Your task to perform on an android device: find photos in the google photos app Image 0: 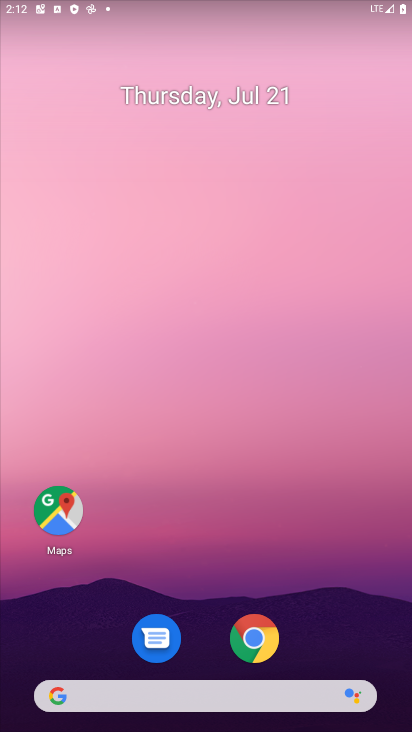
Step 0: drag from (224, 713) to (194, 369)
Your task to perform on an android device: find photos in the google photos app Image 1: 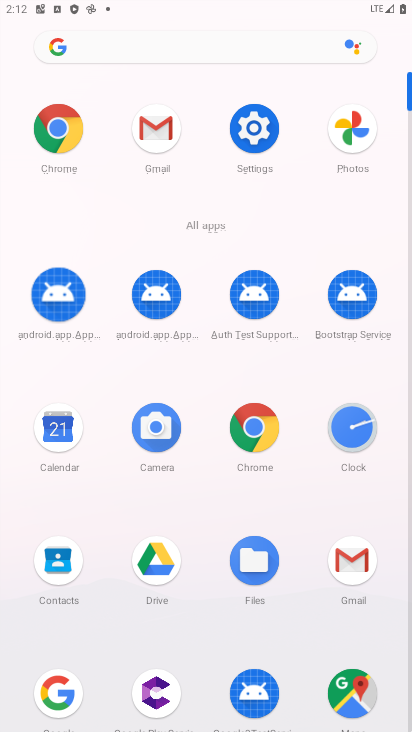
Step 1: click (350, 138)
Your task to perform on an android device: find photos in the google photos app Image 2: 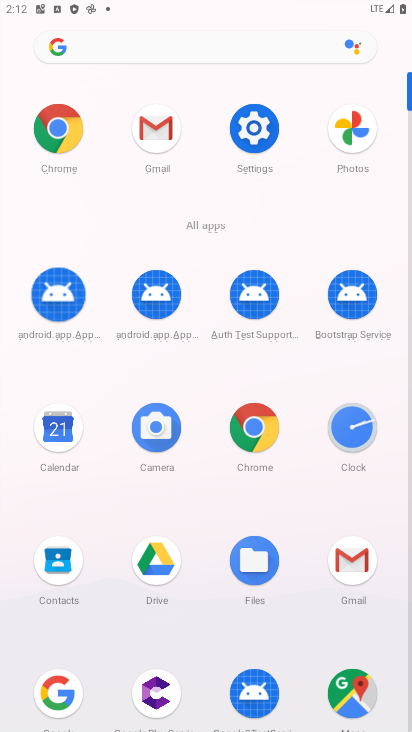
Step 2: click (350, 138)
Your task to perform on an android device: find photos in the google photos app Image 3: 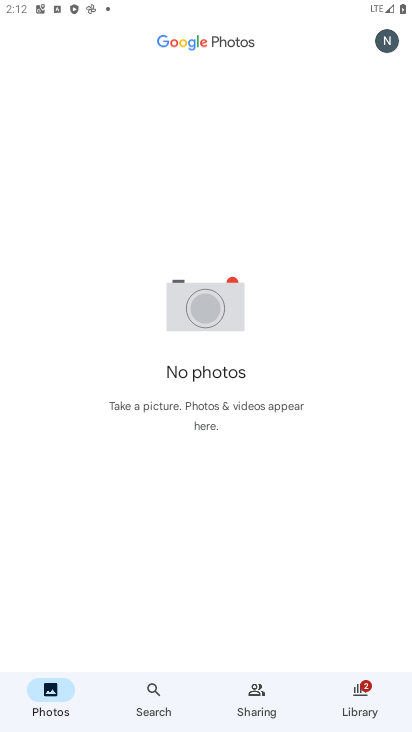
Step 3: click (156, 695)
Your task to perform on an android device: find photos in the google photos app Image 4: 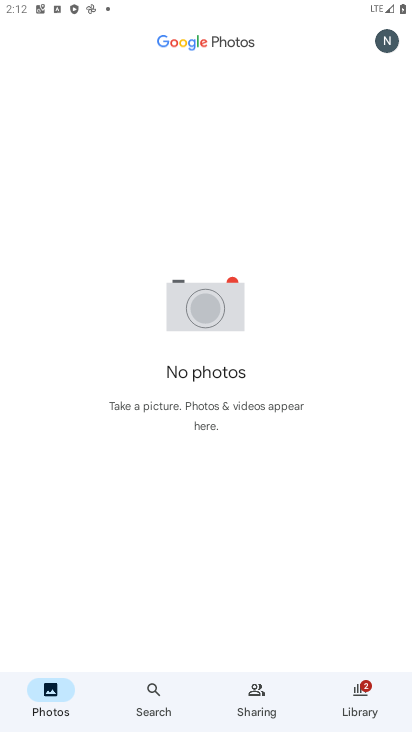
Step 4: click (156, 695)
Your task to perform on an android device: find photos in the google photos app Image 5: 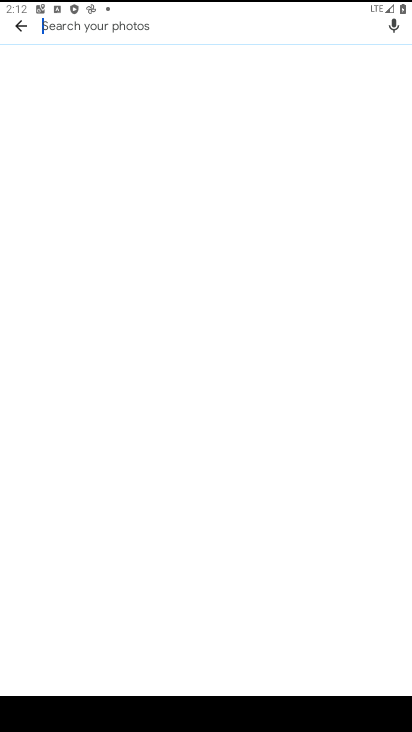
Step 5: task complete